Your task to perform on an android device: show emergency info Image 0: 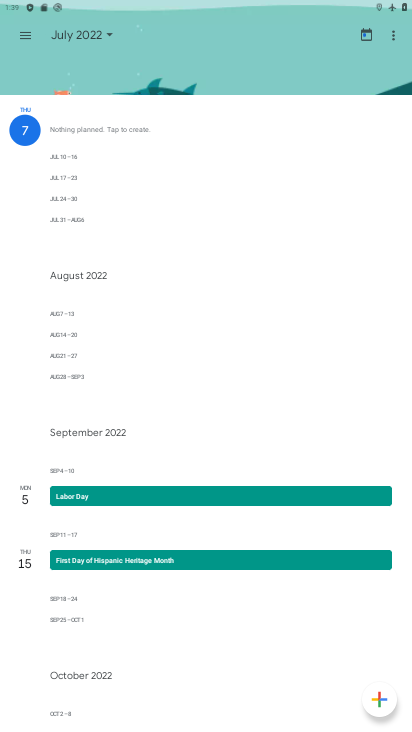
Step 0: press home button
Your task to perform on an android device: show emergency info Image 1: 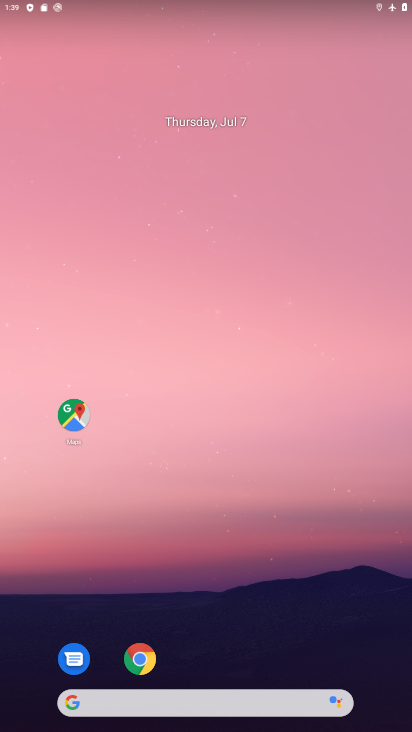
Step 1: drag from (323, 619) to (338, 236)
Your task to perform on an android device: show emergency info Image 2: 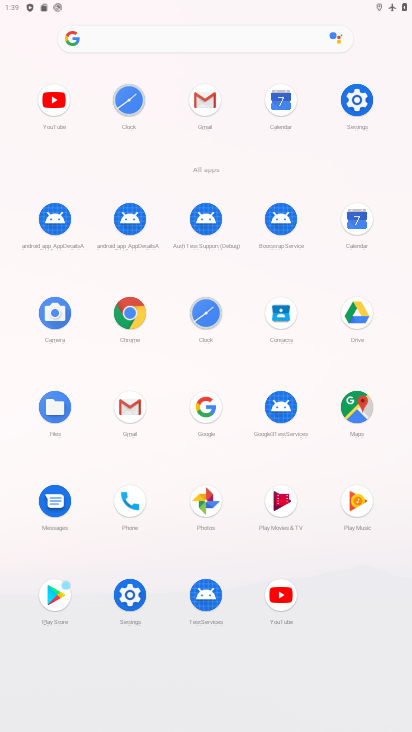
Step 2: click (350, 109)
Your task to perform on an android device: show emergency info Image 3: 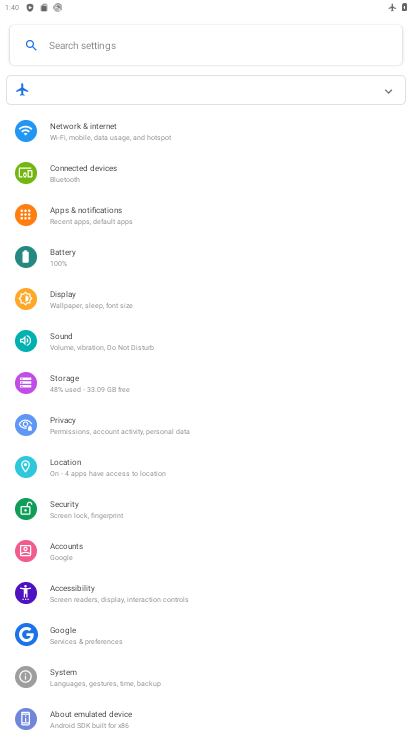
Step 3: drag from (201, 628) to (278, 248)
Your task to perform on an android device: show emergency info Image 4: 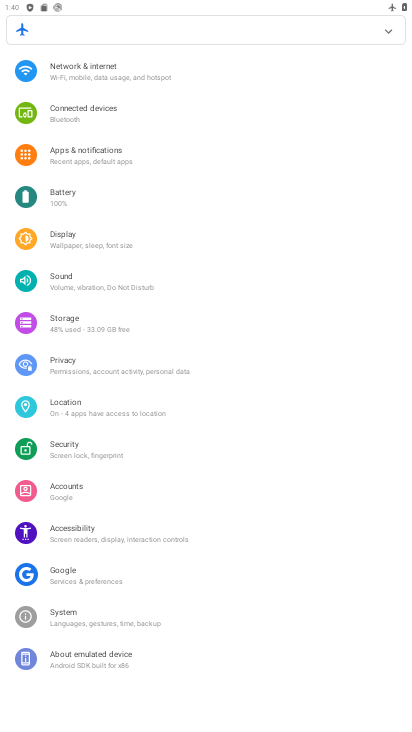
Step 4: click (126, 674)
Your task to perform on an android device: show emergency info Image 5: 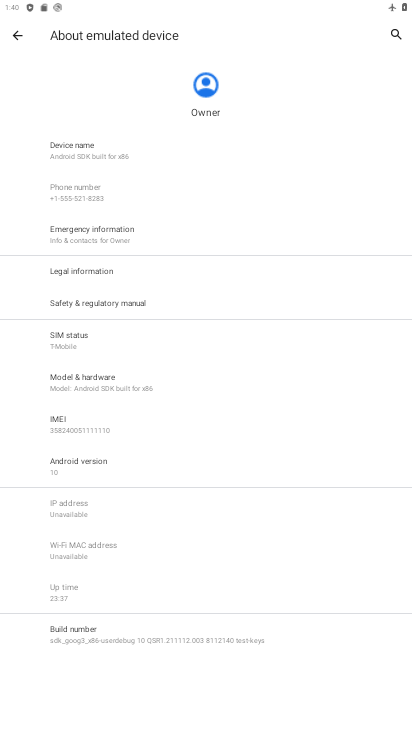
Step 5: click (98, 232)
Your task to perform on an android device: show emergency info Image 6: 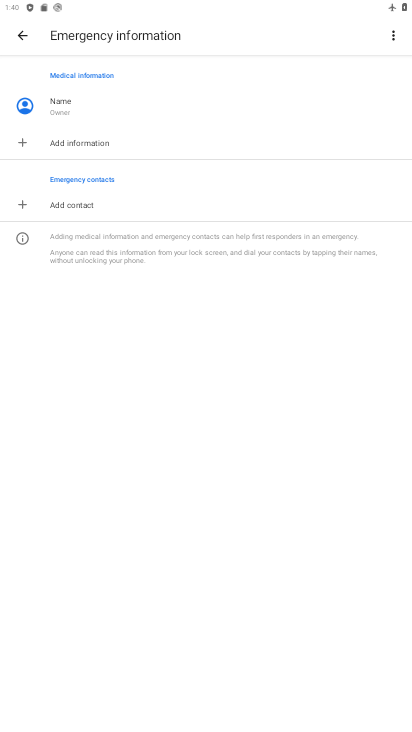
Step 6: task complete